Your task to perform on an android device: Is it going to rain this weekend? Image 0: 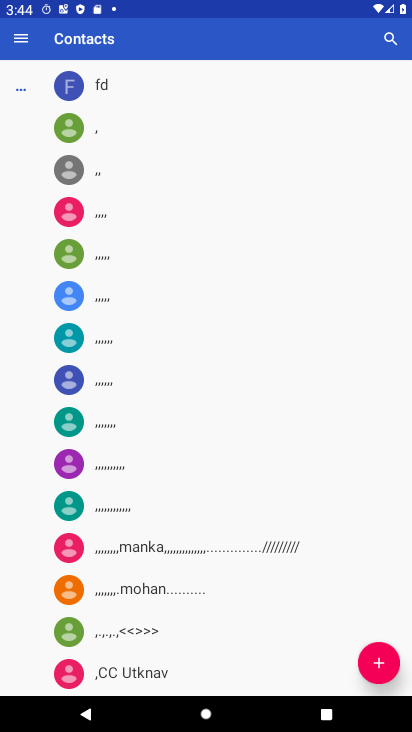
Step 0: press home button
Your task to perform on an android device: Is it going to rain this weekend? Image 1: 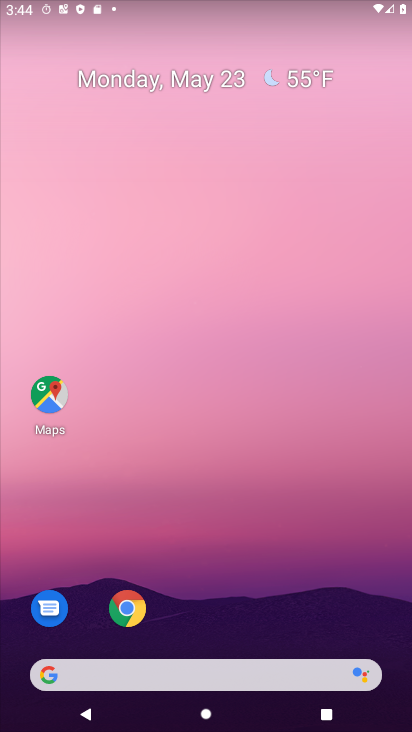
Step 1: click (306, 79)
Your task to perform on an android device: Is it going to rain this weekend? Image 2: 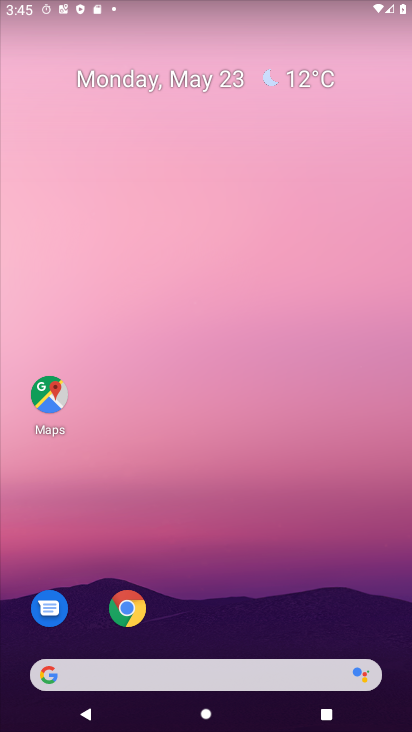
Step 2: click (311, 79)
Your task to perform on an android device: Is it going to rain this weekend? Image 3: 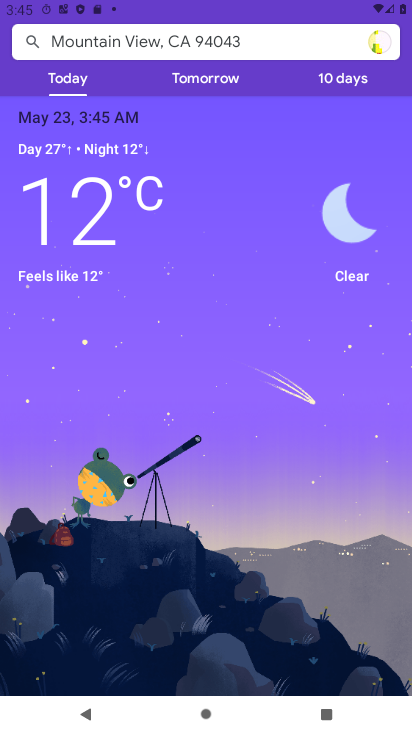
Step 3: click (327, 85)
Your task to perform on an android device: Is it going to rain this weekend? Image 4: 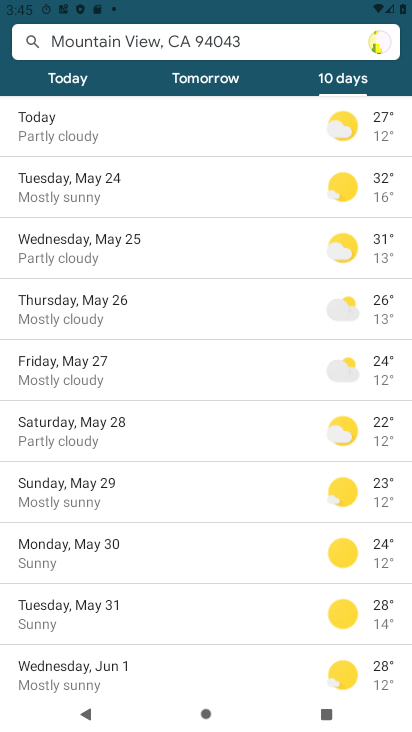
Step 4: task complete